Your task to perform on an android device: Open internet settings Image 0: 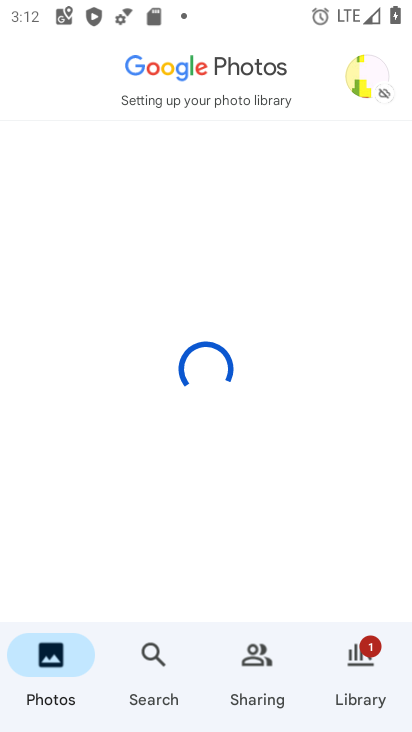
Step 0: press home button
Your task to perform on an android device: Open internet settings Image 1: 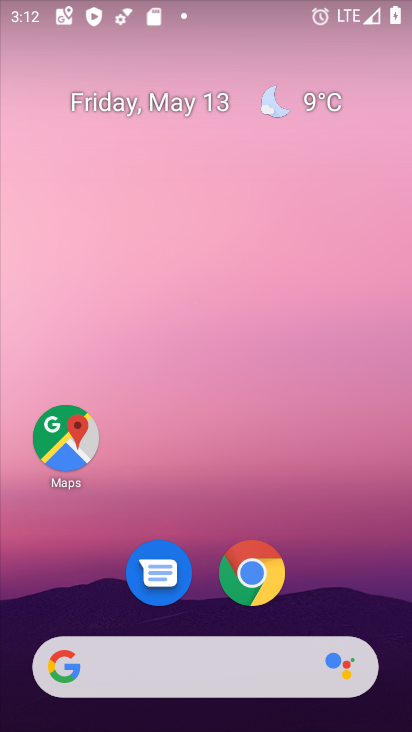
Step 1: drag from (328, 583) to (201, 67)
Your task to perform on an android device: Open internet settings Image 2: 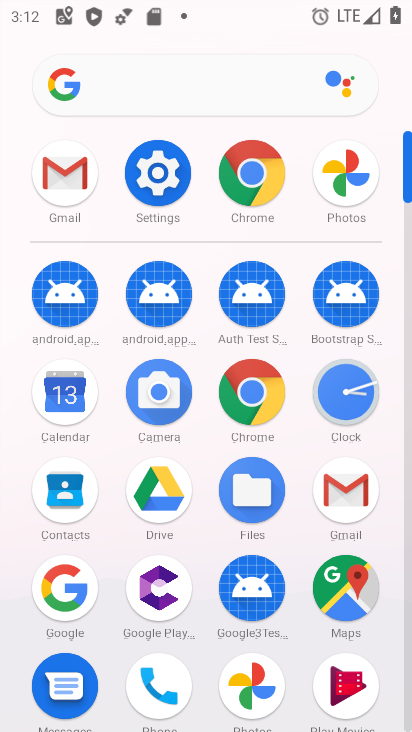
Step 2: click (155, 174)
Your task to perform on an android device: Open internet settings Image 3: 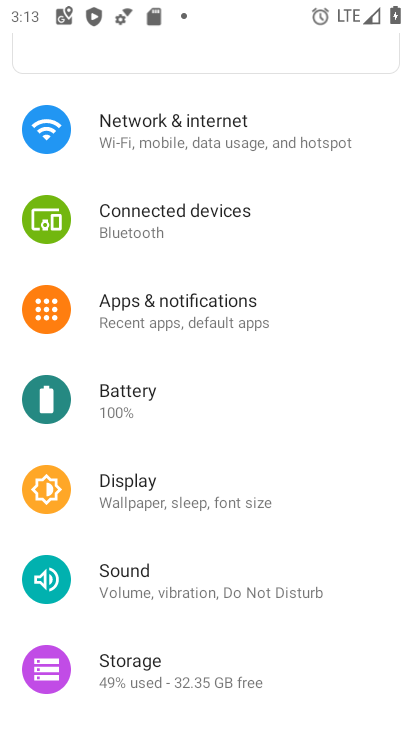
Step 3: click (184, 141)
Your task to perform on an android device: Open internet settings Image 4: 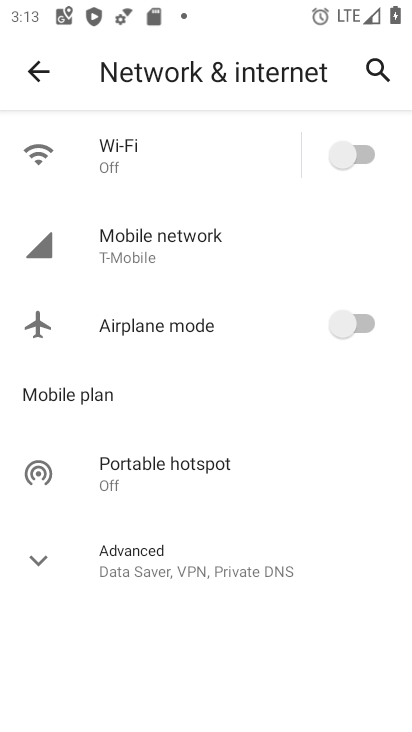
Step 4: task complete